Your task to perform on an android device: Do I have any events tomorrow? Image 0: 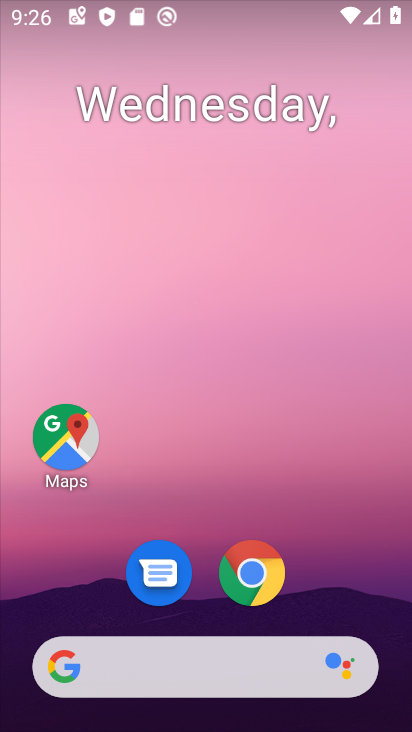
Step 0: click (327, 241)
Your task to perform on an android device: Do I have any events tomorrow? Image 1: 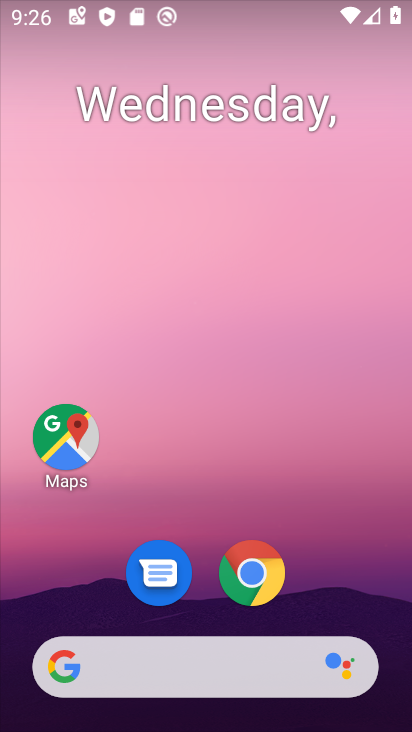
Step 1: drag from (372, 314) to (363, 193)
Your task to perform on an android device: Do I have any events tomorrow? Image 2: 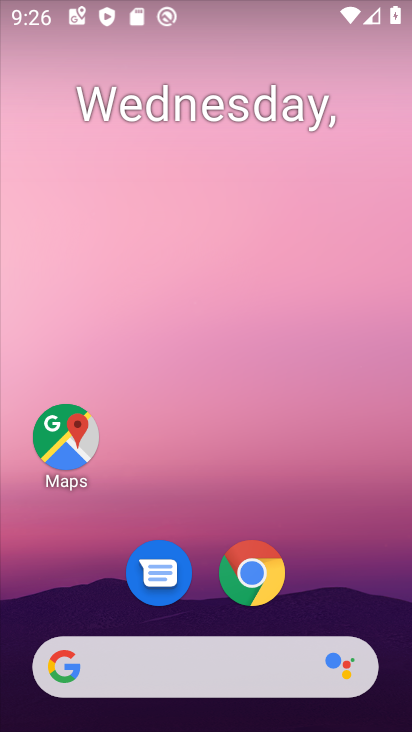
Step 2: drag from (381, 346) to (360, 193)
Your task to perform on an android device: Do I have any events tomorrow? Image 3: 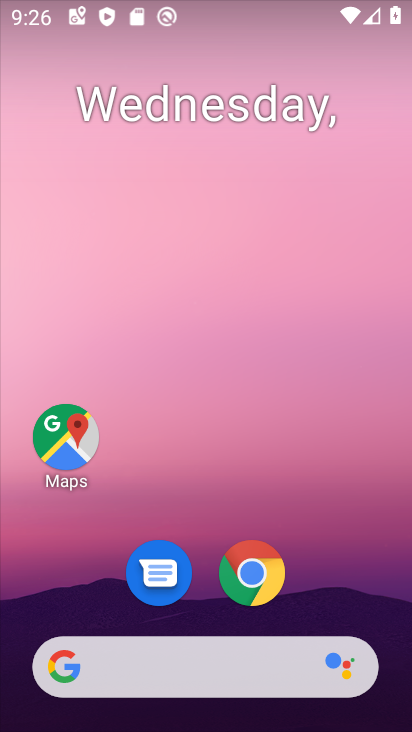
Step 3: click (386, 173)
Your task to perform on an android device: Do I have any events tomorrow? Image 4: 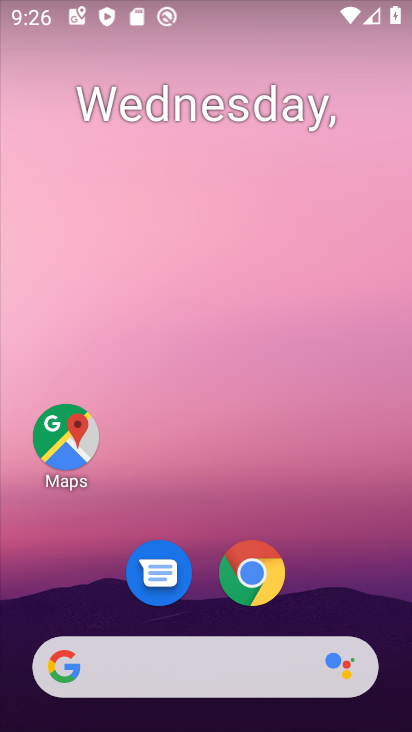
Step 4: drag from (382, 601) to (345, 209)
Your task to perform on an android device: Do I have any events tomorrow? Image 5: 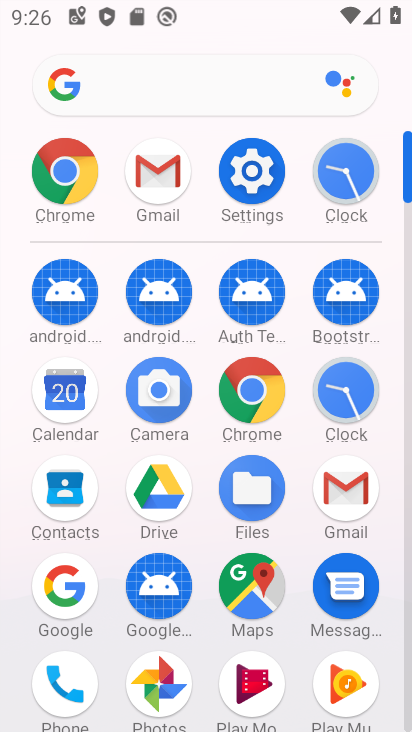
Step 5: click (341, 386)
Your task to perform on an android device: Do I have any events tomorrow? Image 6: 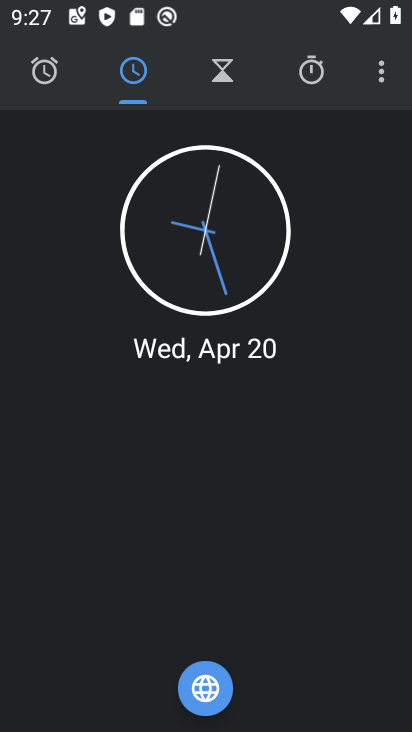
Step 6: press home button
Your task to perform on an android device: Do I have any events tomorrow? Image 7: 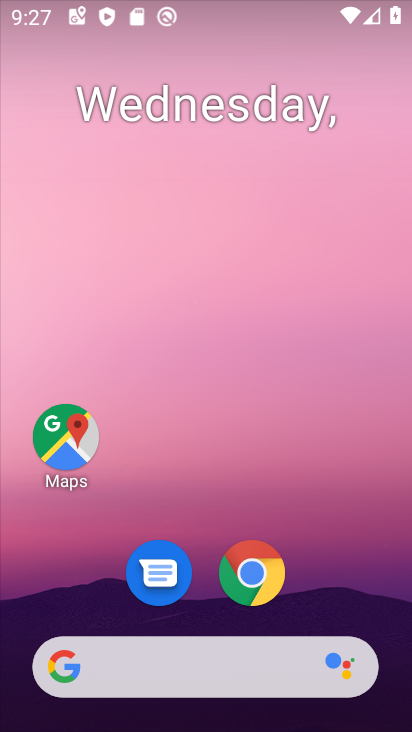
Step 7: drag from (363, 453) to (349, 177)
Your task to perform on an android device: Do I have any events tomorrow? Image 8: 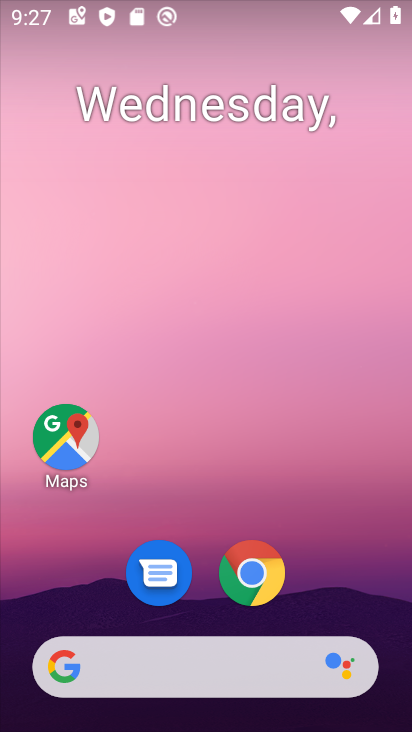
Step 8: click (341, 239)
Your task to perform on an android device: Do I have any events tomorrow? Image 9: 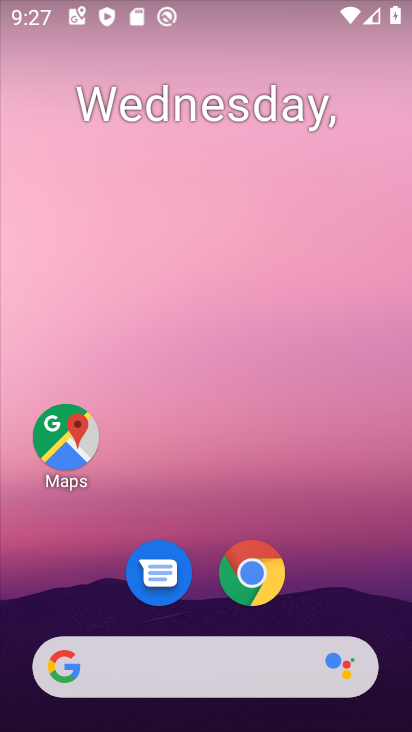
Step 9: drag from (382, 635) to (330, 185)
Your task to perform on an android device: Do I have any events tomorrow? Image 10: 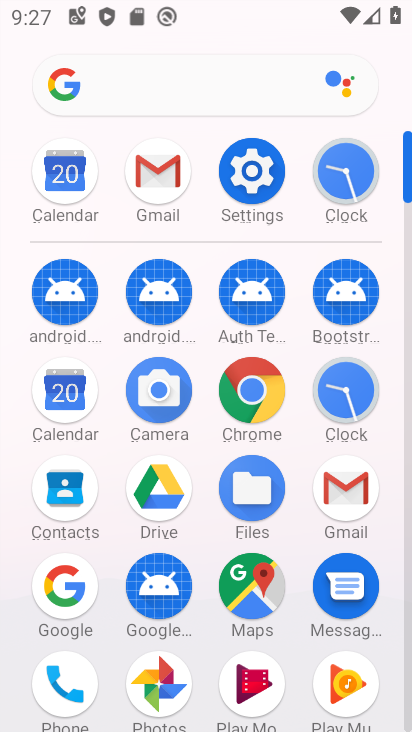
Step 10: click (64, 394)
Your task to perform on an android device: Do I have any events tomorrow? Image 11: 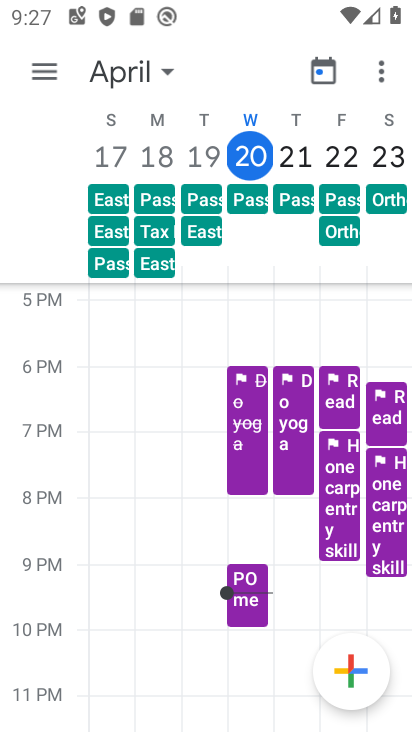
Step 11: click (299, 147)
Your task to perform on an android device: Do I have any events tomorrow? Image 12: 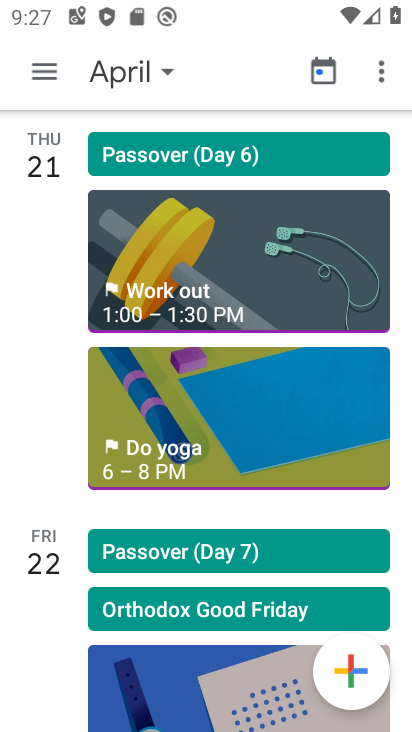
Step 12: click (30, 61)
Your task to perform on an android device: Do I have any events tomorrow? Image 13: 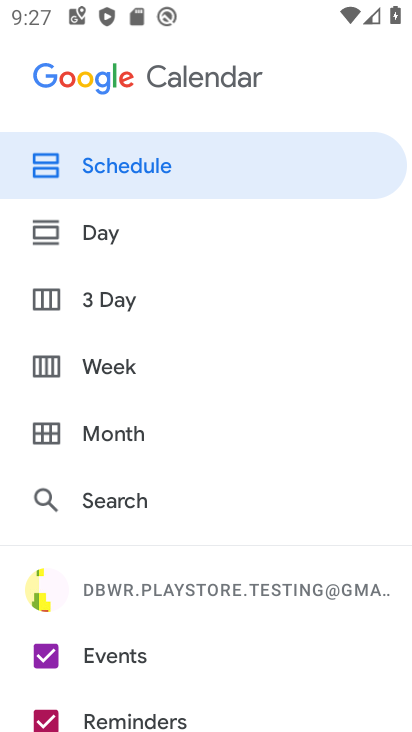
Step 13: task complete